Your task to perform on an android device: Open Maps and search for coffee Image 0: 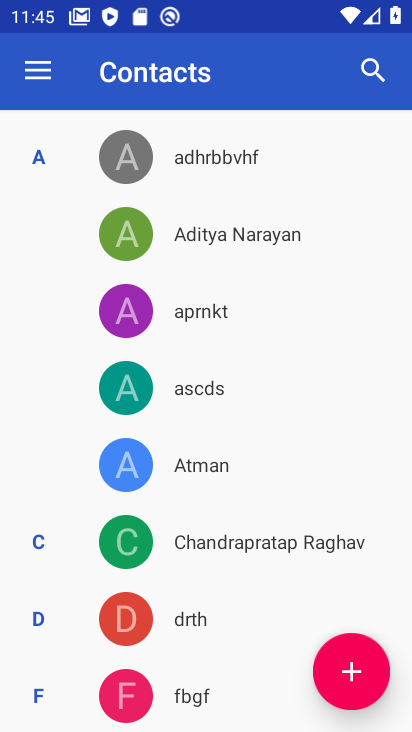
Step 0: press home button
Your task to perform on an android device: Open Maps and search for coffee Image 1: 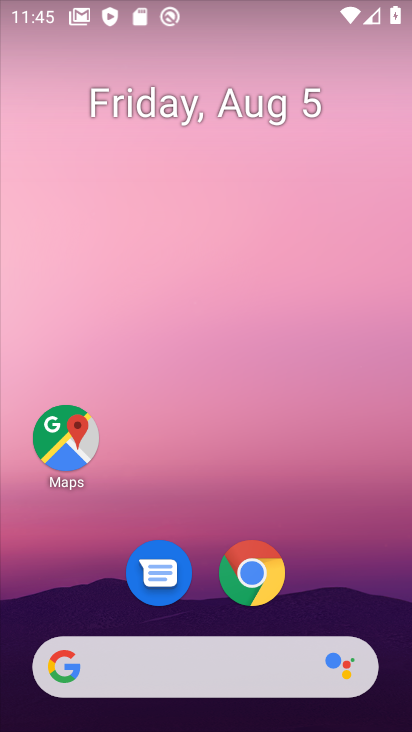
Step 1: drag from (350, 473) to (347, 244)
Your task to perform on an android device: Open Maps and search for coffee Image 2: 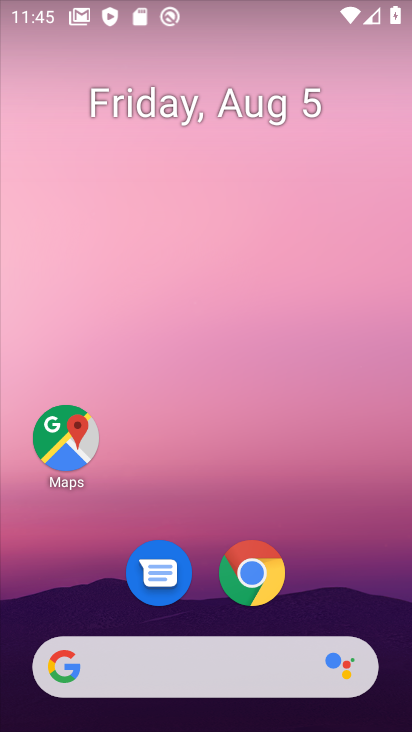
Step 2: drag from (197, 496) to (193, 117)
Your task to perform on an android device: Open Maps and search for coffee Image 3: 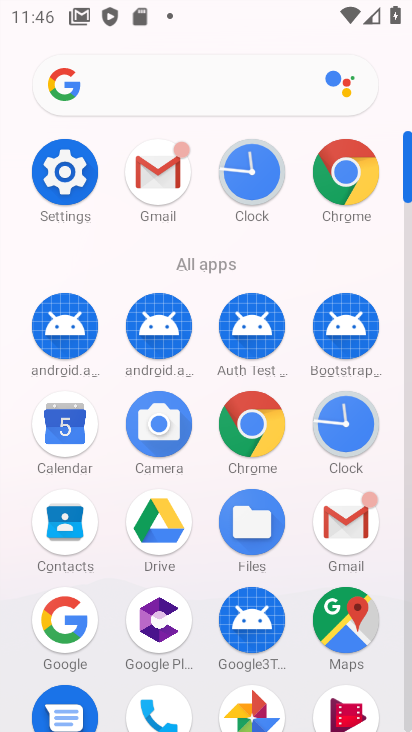
Step 3: press home button
Your task to perform on an android device: Open Maps and search for coffee Image 4: 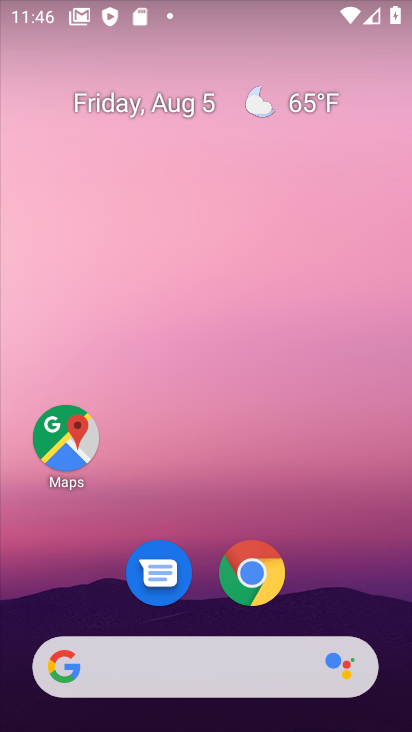
Step 4: drag from (219, 482) to (211, 143)
Your task to perform on an android device: Open Maps and search for coffee Image 5: 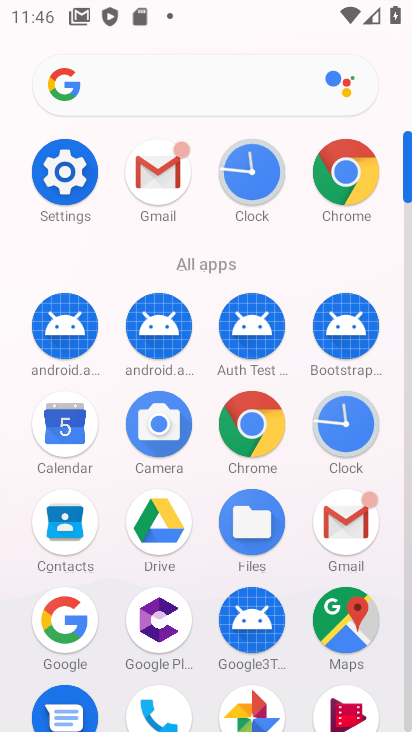
Step 5: click (330, 611)
Your task to perform on an android device: Open Maps and search for coffee Image 6: 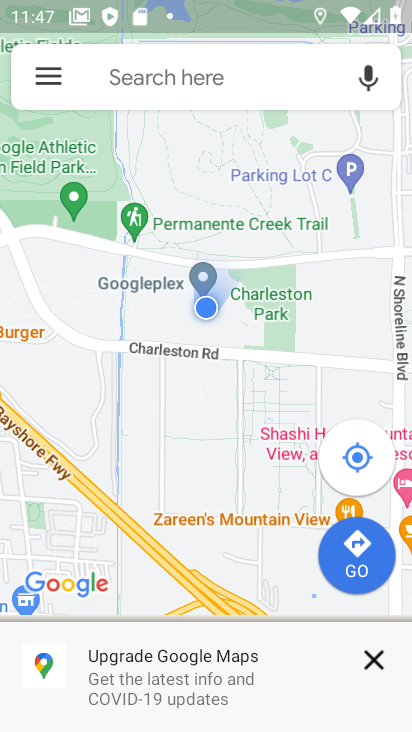
Step 6: click (169, 78)
Your task to perform on an android device: Open Maps and search for coffee Image 7: 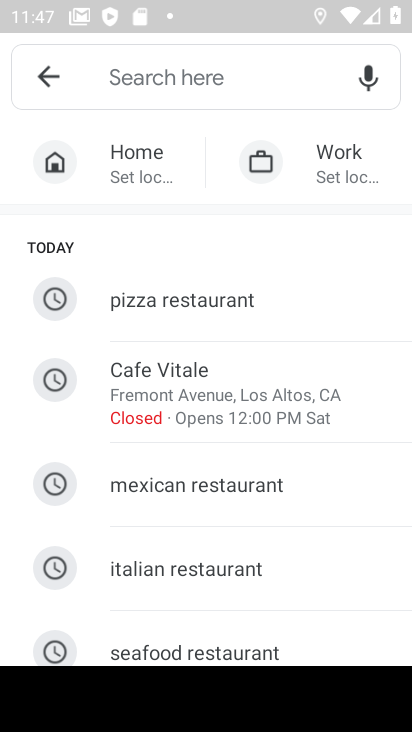
Step 7: type "coffee"
Your task to perform on an android device: Open Maps and search for coffee Image 8: 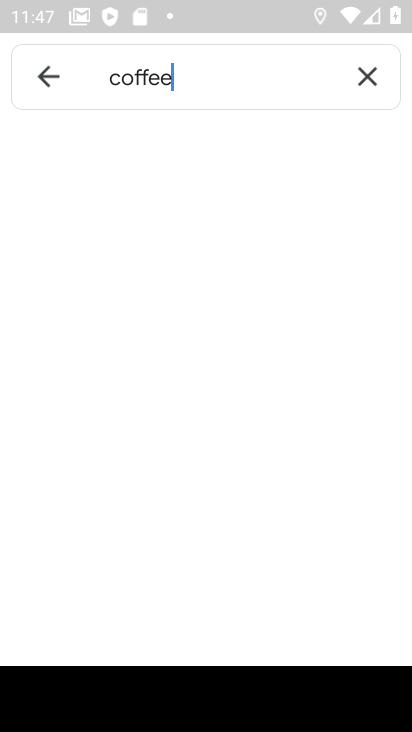
Step 8: type ""
Your task to perform on an android device: Open Maps and search for coffee Image 9: 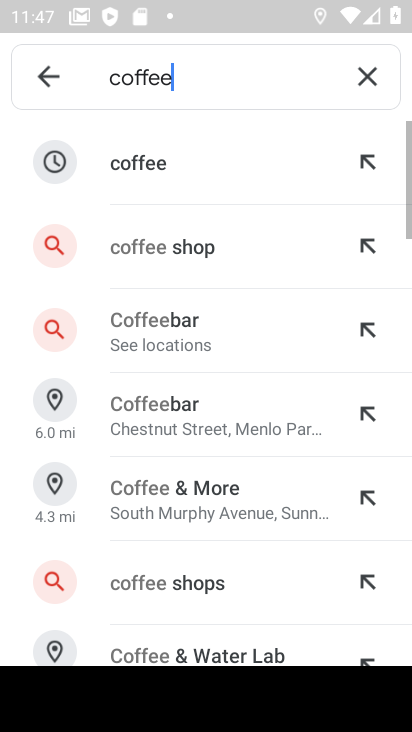
Step 9: press enter
Your task to perform on an android device: Open Maps and search for coffee Image 10: 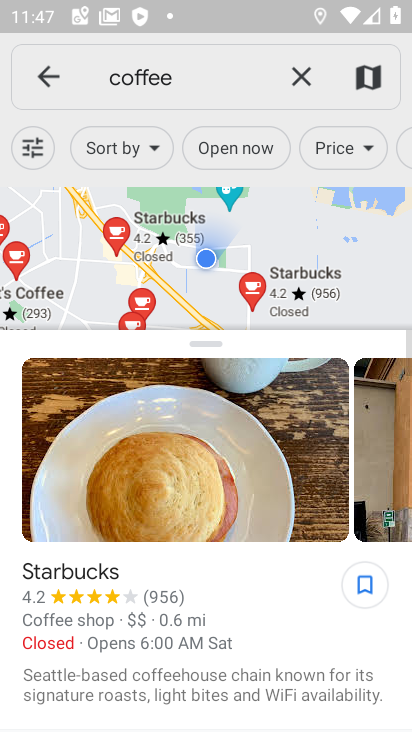
Step 10: task complete